Your task to perform on an android device: Do I have any events tomorrow? Image 0: 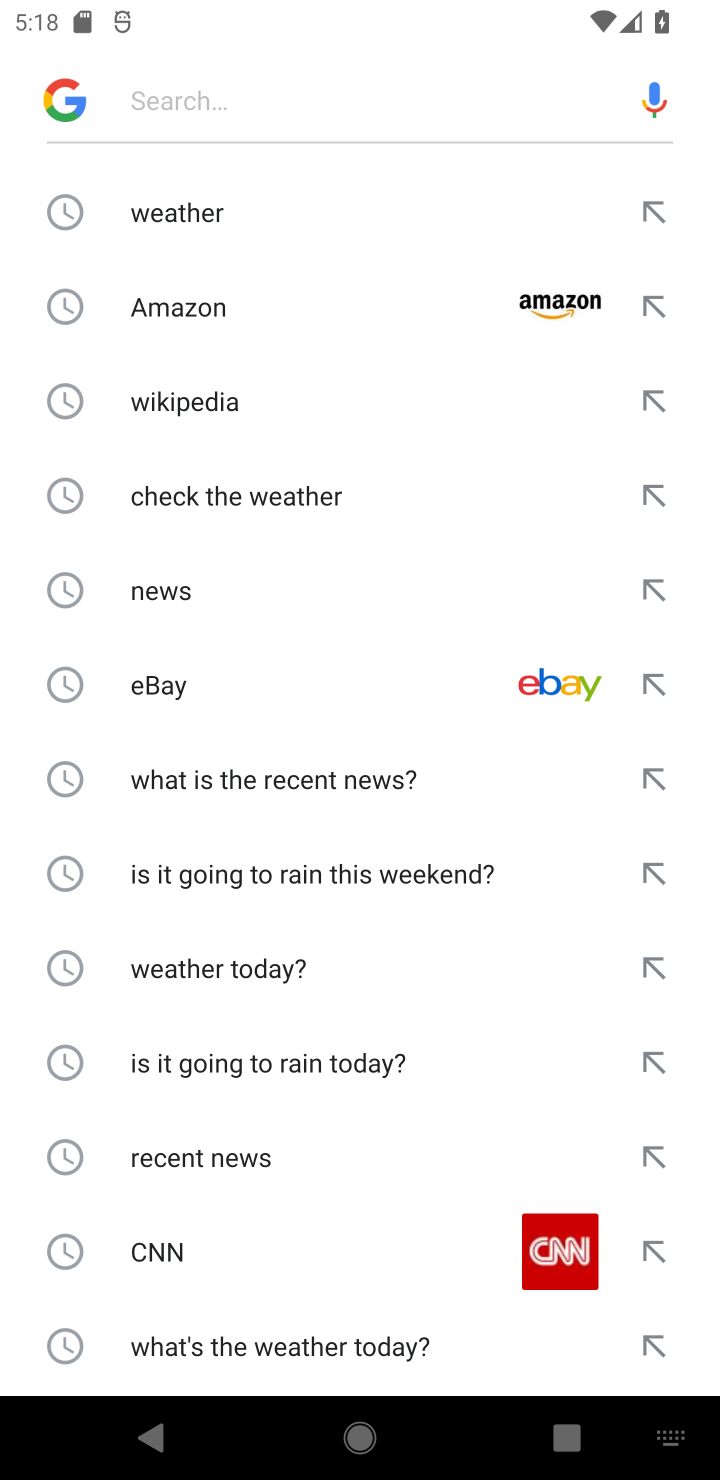
Step 0: press home button
Your task to perform on an android device: Do I have any events tomorrow? Image 1: 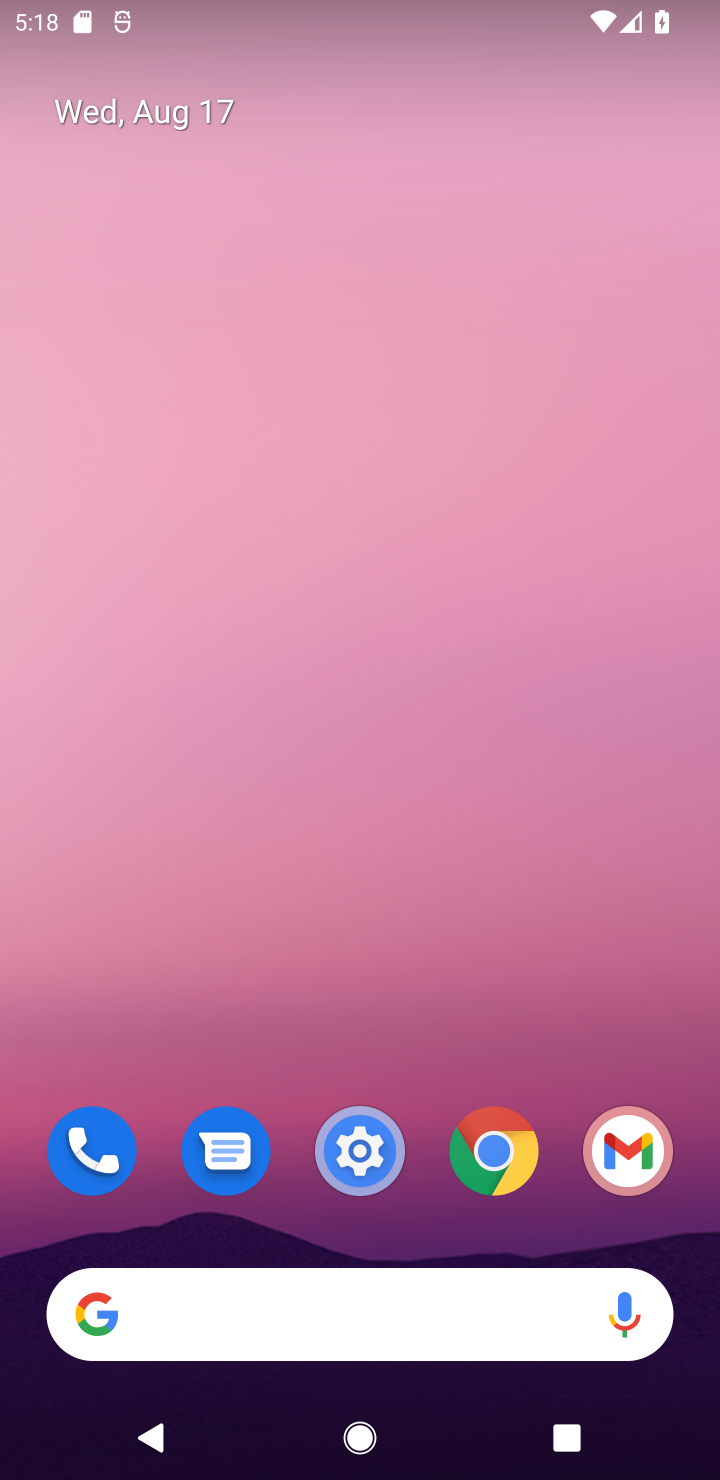
Step 1: drag from (405, 1231) to (385, 124)
Your task to perform on an android device: Do I have any events tomorrow? Image 2: 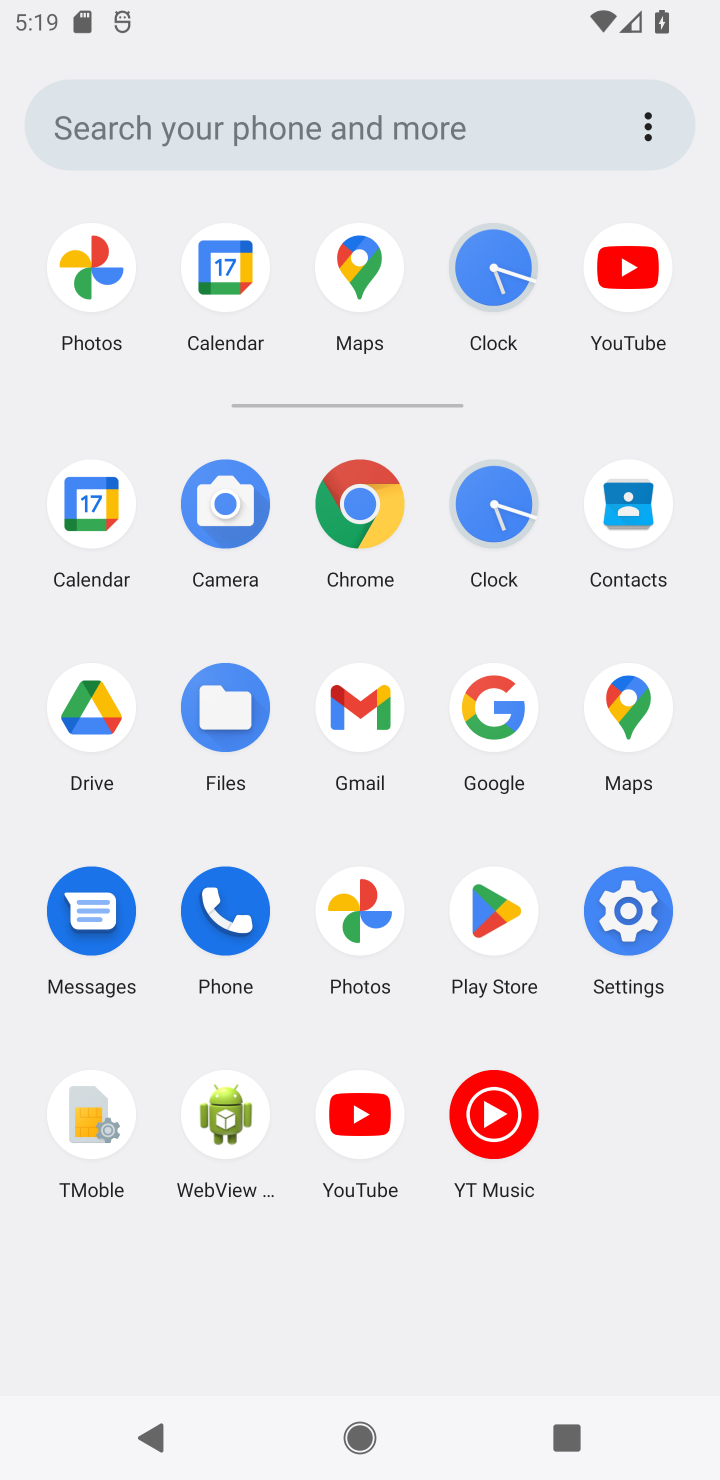
Step 2: click (73, 509)
Your task to perform on an android device: Do I have any events tomorrow? Image 3: 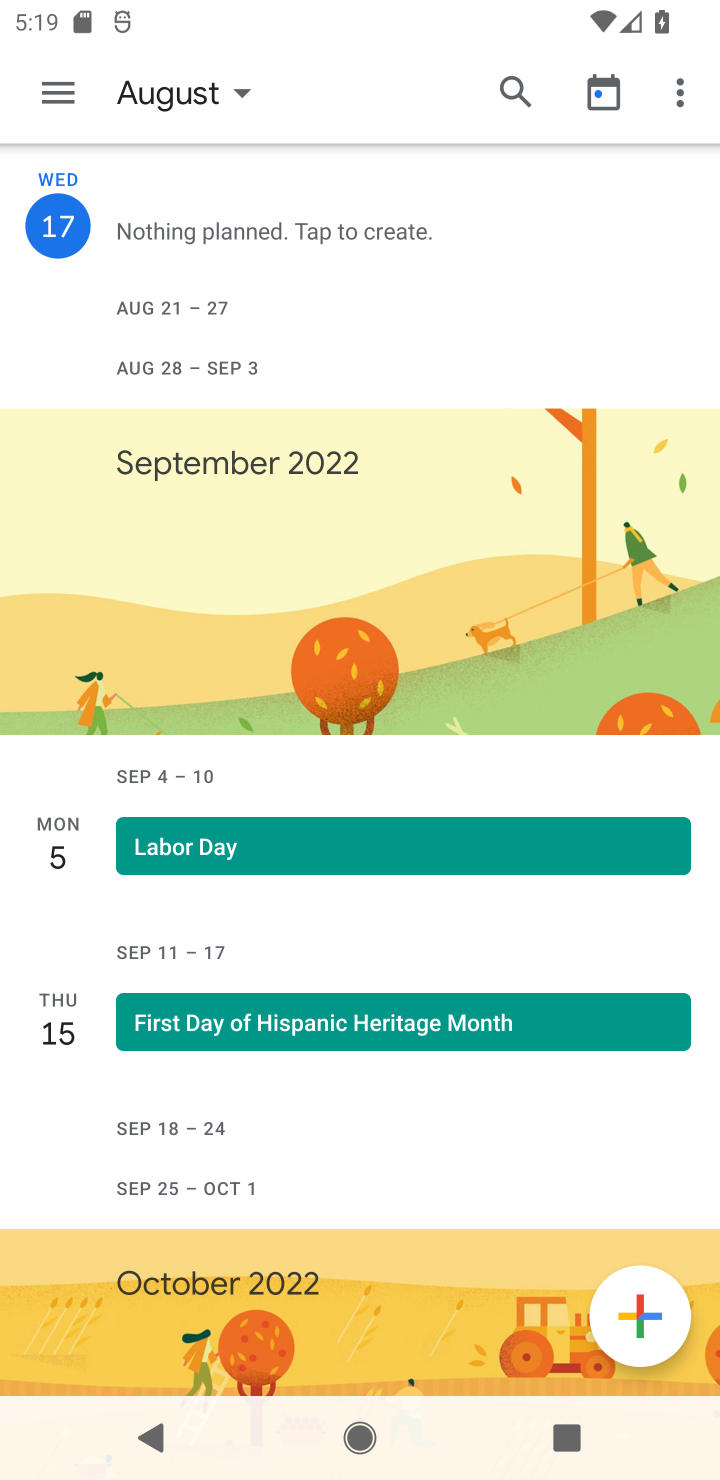
Step 3: task complete